Your task to perform on an android device: allow cookies in the chrome app Image 0: 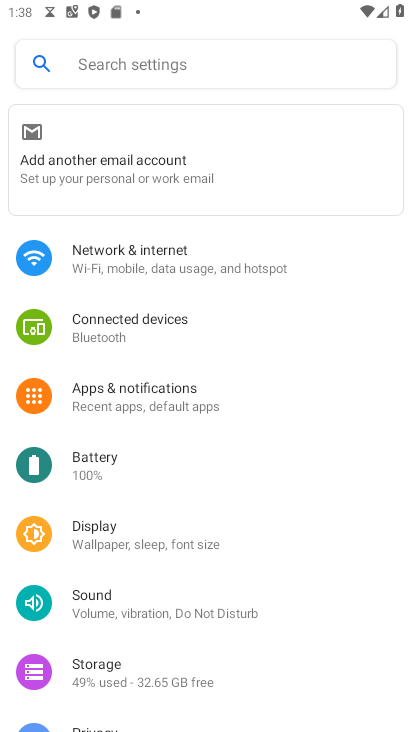
Step 0: press home button
Your task to perform on an android device: allow cookies in the chrome app Image 1: 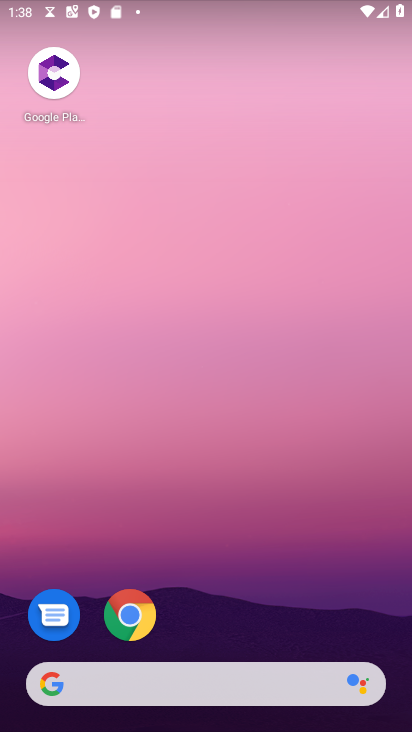
Step 1: click (125, 614)
Your task to perform on an android device: allow cookies in the chrome app Image 2: 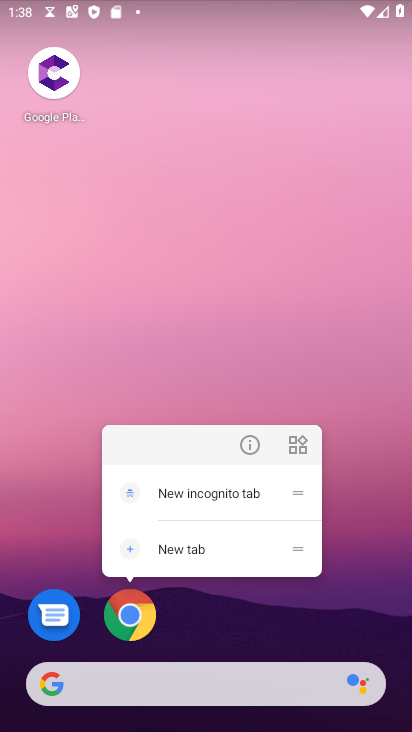
Step 2: click (125, 608)
Your task to perform on an android device: allow cookies in the chrome app Image 3: 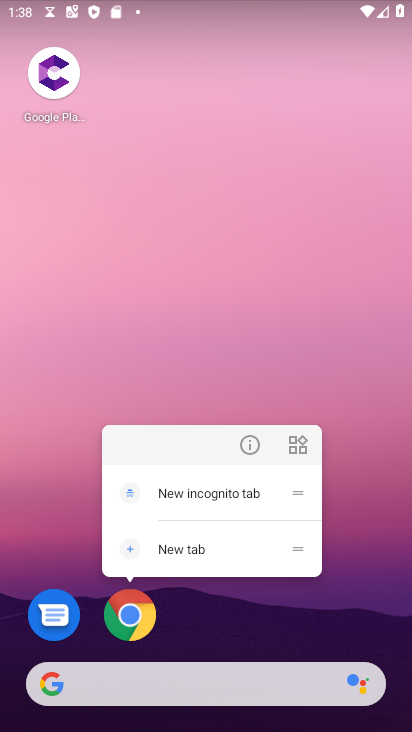
Step 3: click (125, 607)
Your task to perform on an android device: allow cookies in the chrome app Image 4: 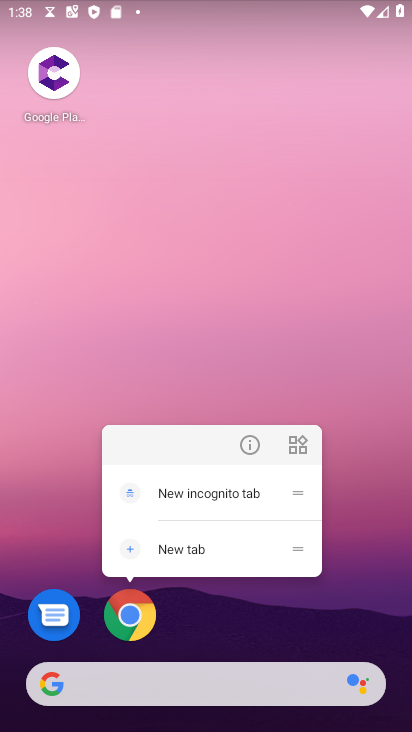
Step 4: click (126, 604)
Your task to perform on an android device: allow cookies in the chrome app Image 5: 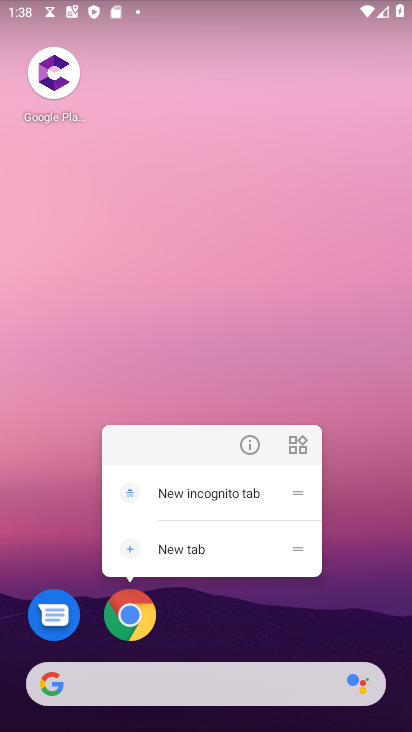
Step 5: click (126, 604)
Your task to perform on an android device: allow cookies in the chrome app Image 6: 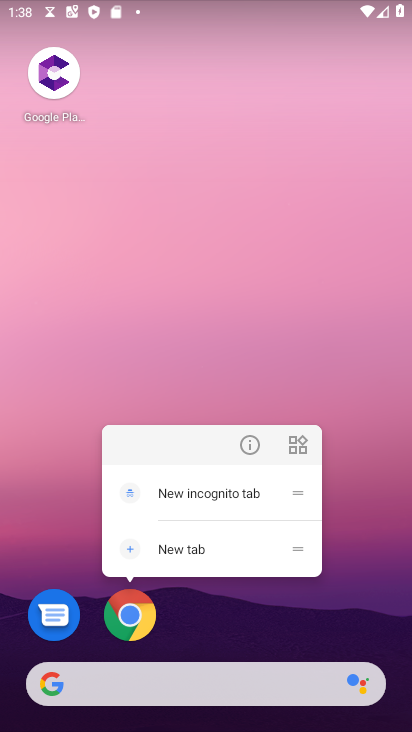
Step 6: click (133, 607)
Your task to perform on an android device: allow cookies in the chrome app Image 7: 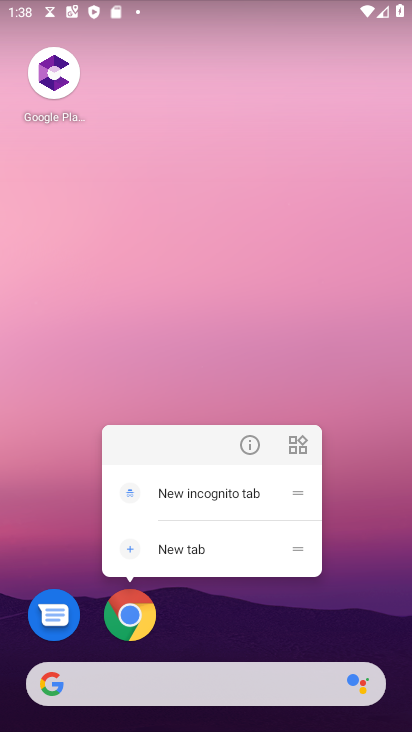
Step 7: click (133, 607)
Your task to perform on an android device: allow cookies in the chrome app Image 8: 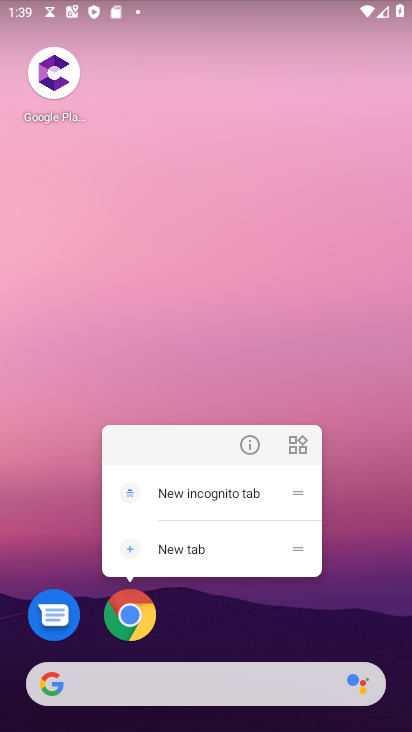
Step 8: click (133, 607)
Your task to perform on an android device: allow cookies in the chrome app Image 9: 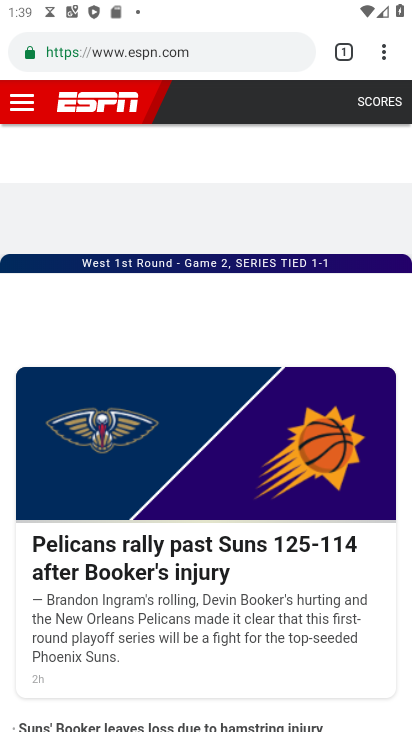
Step 9: click (385, 46)
Your task to perform on an android device: allow cookies in the chrome app Image 10: 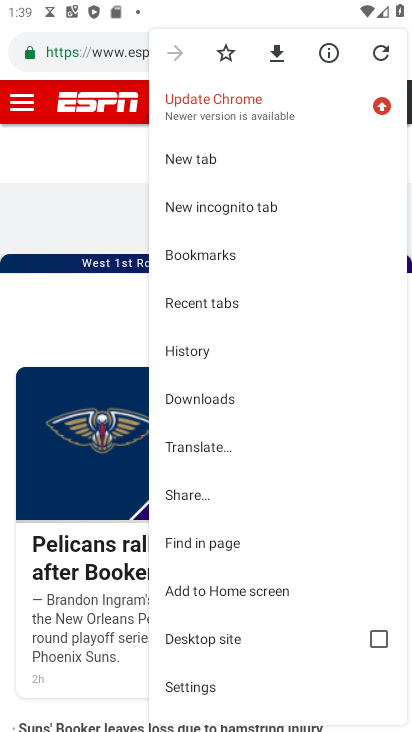
Step 10: click (192, 681)
Your task to perform on an android device: allow cookies in the chrome app Image 11: 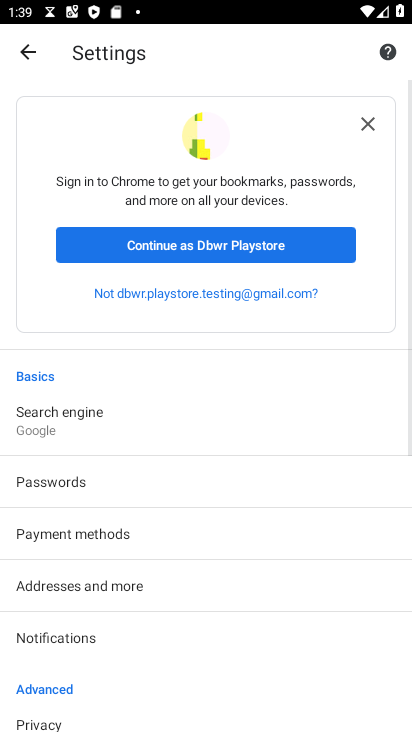
Step 11: drag from (90, 596) to (153, 384)
Your task to perform on an android device: allow cookies in the chrome app Image 12: 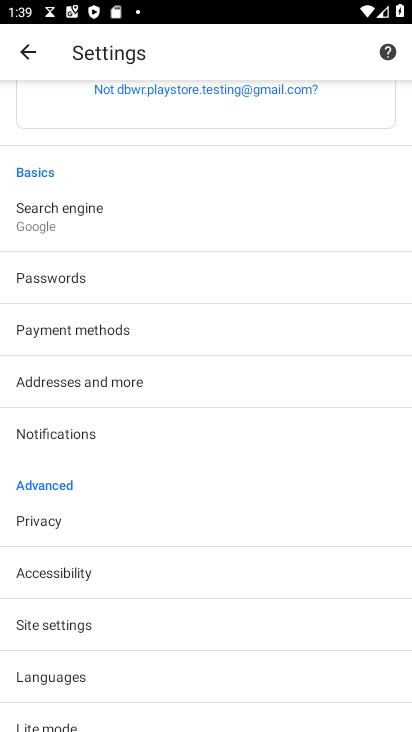
Step 12: click (62, 618)
Your task to perform on an android device: allow cookies in the chrome app Image 13: 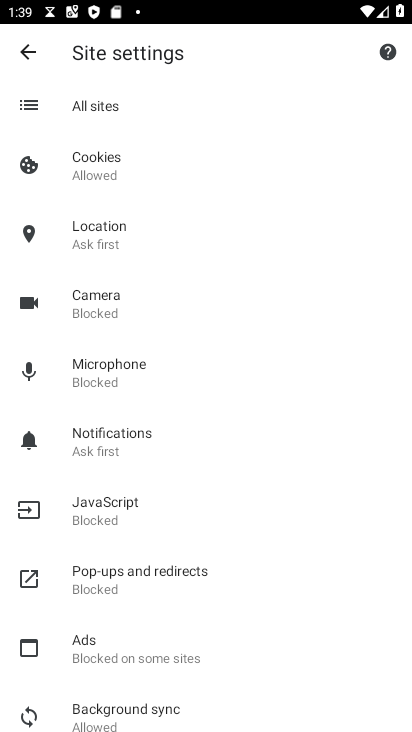
Step 13: click (101, 166)
Your task to perform on an android device: allow cookies in the chrome app Image 14: 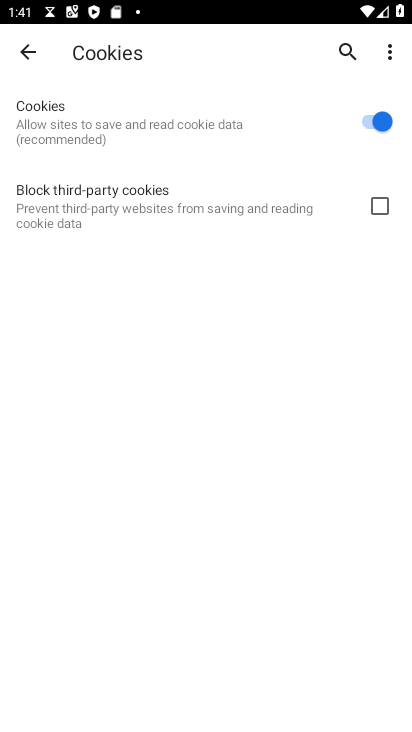
Step 14: task complete